Your task to perform on an android device: open app "Indeed Job Search" (install if not already installed) and enter user name: "quixotic@inbox.com" and password: "microphones" Image 0: 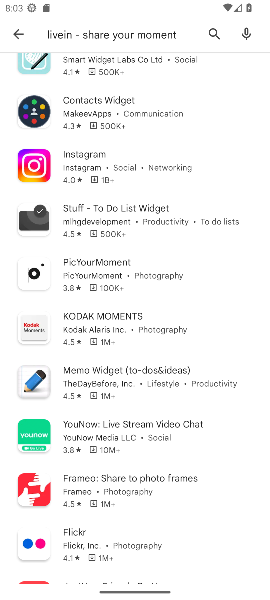
Step 0: press home button
Your task to perform on an android device: open app "Indeed Job Search" (install if not already installed) and enter user name: "quixotic@inbox.com" and password: "microphones" Image 1: 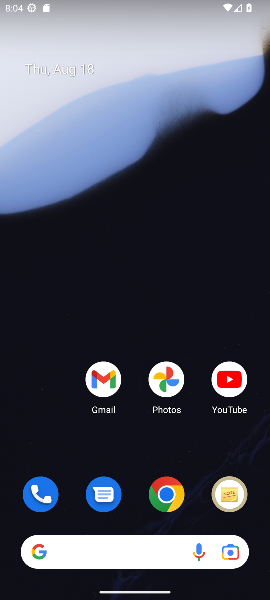
Step 1: drag from (209, 467) to (176, 165)
Your task to perform on an android device: open app "Indeed Job Search" (install if not already installed) and enter user name: "quixotic@inbox.com" and password: "microphones" Image 2: 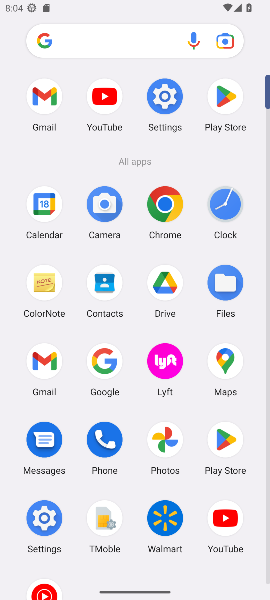
Step 2: click (228, 94)
Your task to perform on an android device: open app "Indeed Job Search" (install if not already installed) and enter user name: "quixotic@inbox.com" and password: "microphones" Image 3: 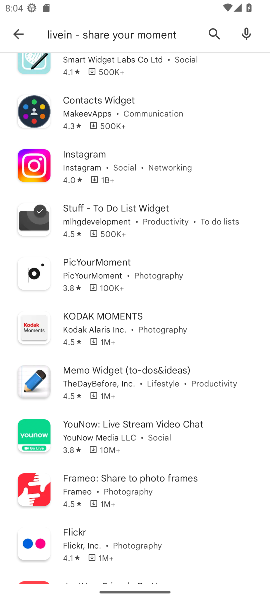
Step 3: click (217, 33)
Your task to perform on an android device: open app "Indeed Job Search" (install if not already installed) and enter user name: "quixotic@inbox.com" and password: "microphones" Image 4: 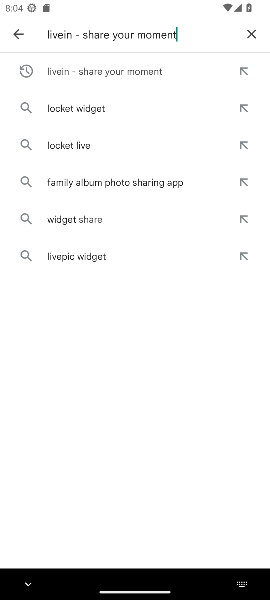
Step 4: click (253, 33)
Your task to perform on an android device: open app "Indeed Job Search" (install if not already installed) and enter user name: "quixotic@inbox.com" and password: "microphones" Image 5: 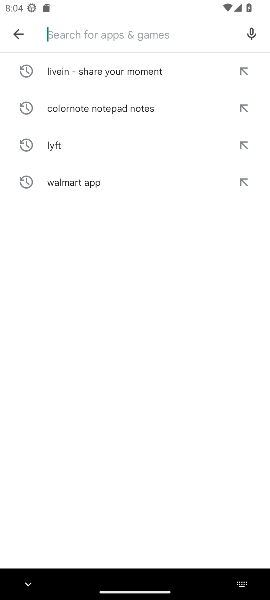
Step 5: type "Indeed Job Search"
Your task to perform on an android device: open app "Indeed Job Search" (install if not already installed) and enter user name: "quixotic@inbox.com" and password: "microphones" Image 6: 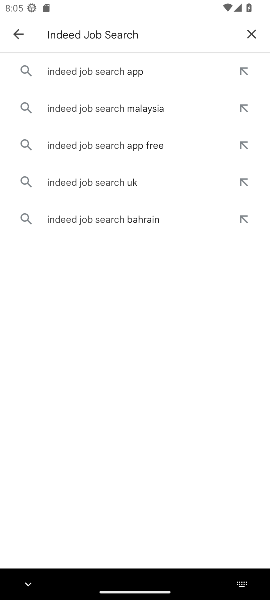
Step 6: click (124, 75)
Your task to perform on an android device: open app "Indeed Job Search" (install if not already installed) and enter user name: "quixotic@inbox.com" and password: "microphones" Image 7: 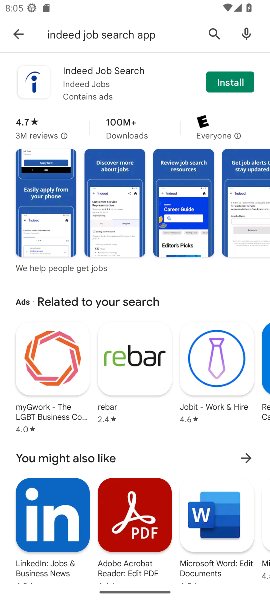
Step 7: click (228, 88)
Your task to perform on an android device: open app "Indeed Job Search" (install if not already installed) and enter user name: "quixotic@inbox.com" and password: "microphones" Image 8: 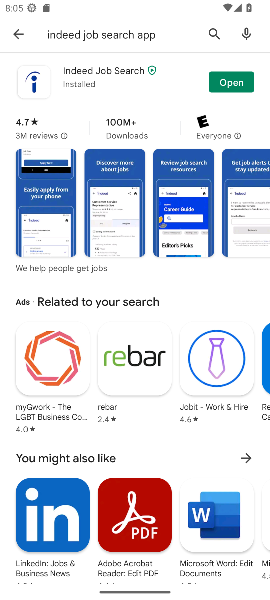
Step 8: click (233, 84)
Your task to perform on an android device: open app "Indeed Job Search" (install if not already installed) and enter user name: "quixotic@inbox.com" and password: "microphones" Image 9: 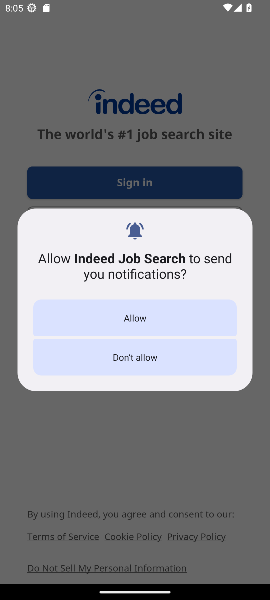
Step 9: click (132, 314)
Your task to perform on an android device: open app "Indeed Job Search" (install if not already installed) and enter user name: "quixotic@inbox.com" and password: "microphones" Image 10: 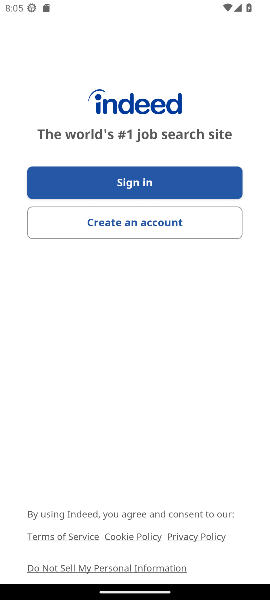
Step 10: click (135, 180)
Your task to perform on an android device: open app "Indeed Job Search" (install if not already installed) and enter user name: "quixotic@inbox.com" and password: "microphones" Image 11: 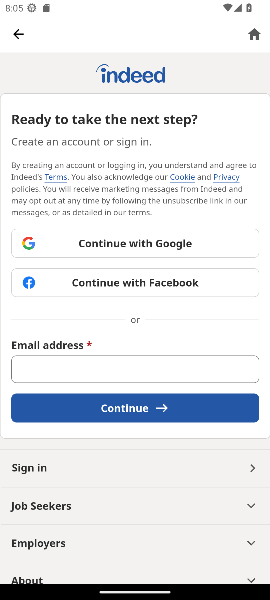
Step 11: click (135, 372)
Your task to perform on an android device: open app "Indeed Job Search" (install if not already installed) and enter user name: "quixotic@inbox.com" and password: "microphones" Image 12: 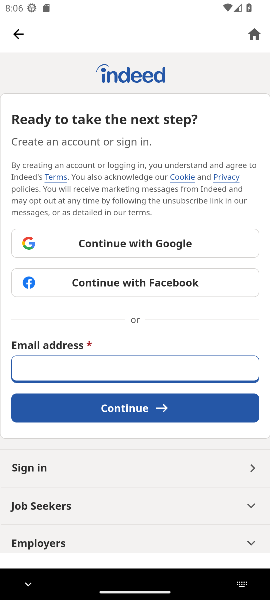
Step 12: type "quixotic@inbox.com"
Your task to perform on an android device: open app "Indeed Job Search" (install if not already installed) and enter user name: "quixotic@inbox.com" and password: "microphones" Image 13: 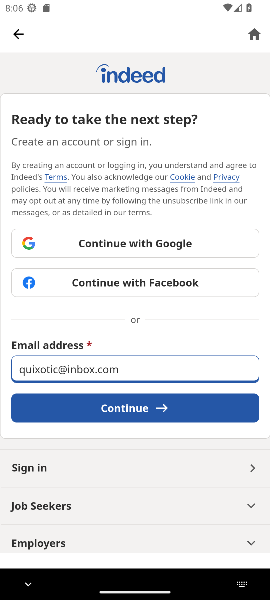
Step 13: click (151, 406)
Your task to perform on an android device: open app "Indeed Job Search" (install if not already installed) and enter user name: "quixotic@inbox.com" and password: "microphones" Image 14: 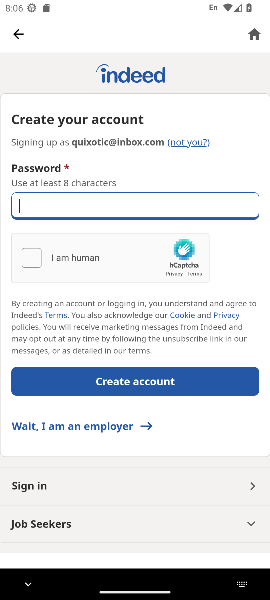
Step 14: click (63, 211)
Your task to perform on an android device: open app "Indeed Job Search" (install if not already installed) and enter user name: "quixotic@inbox.com" and password: "microphones" Image 15: 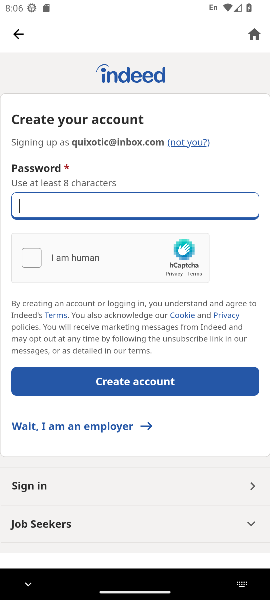
Step 15: type "microphones"
Your task to perform on an android device: open app "Indeed Job Search" (install if not already installed) and enter user name: "quixotic@inbox.com" and password: "microphones" Image 16: 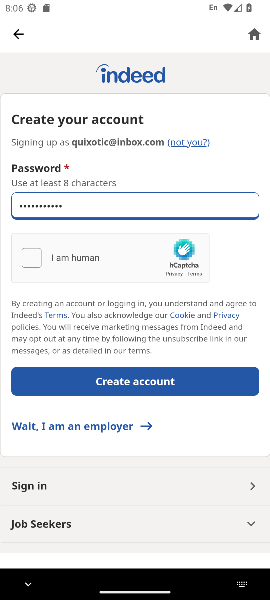
Step 16: task complete